Your task to perform on an android device: Open Android settings Image 0: 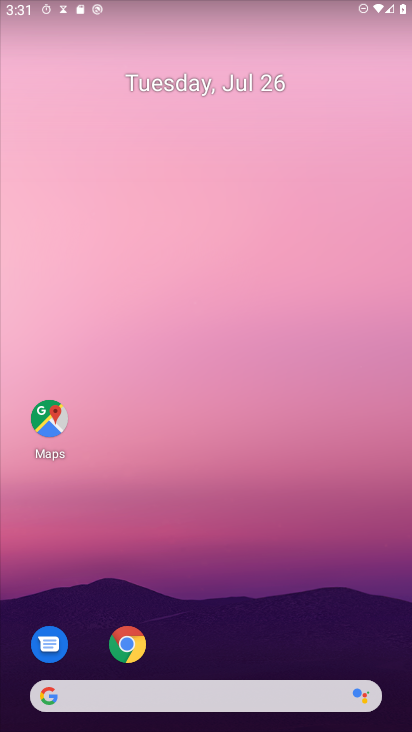
Step 0: press home button
Your task to perform on an android device: Open Android settings Image 1: 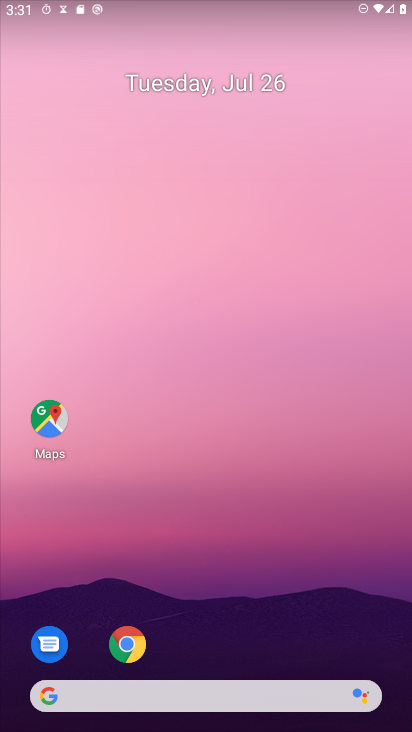
Step 1: drag from (309, 631) to (287, 81)
Your task to perform on an android device: Open Android settings Image 2: 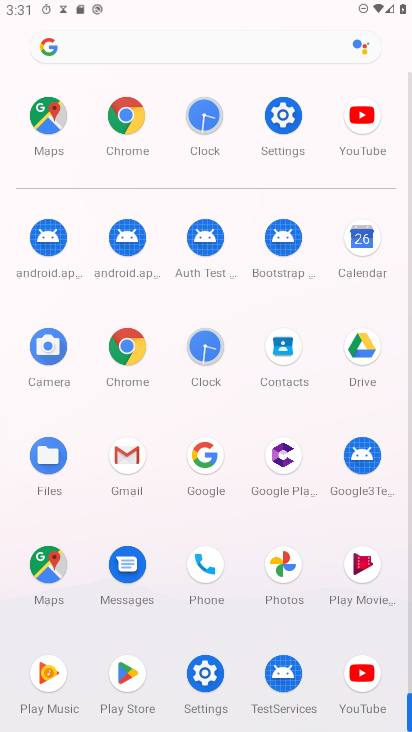
Step 2: click (287, 108)
Your task to perform on an android device: Open Android settings Image 3: 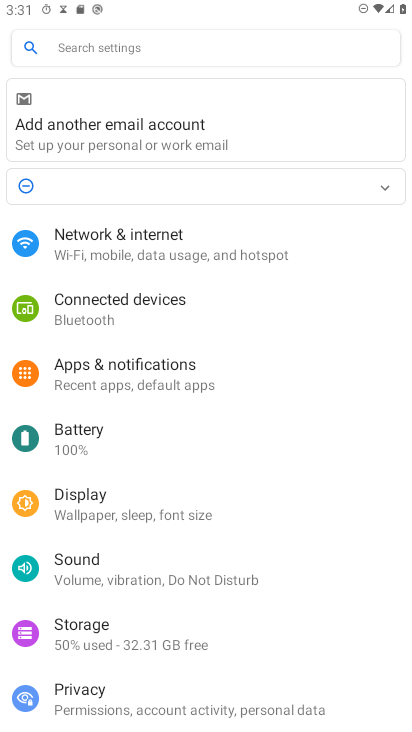
Step 3: task complete